Your task to perform on an android device: add a contact in the contacts app Image 0: 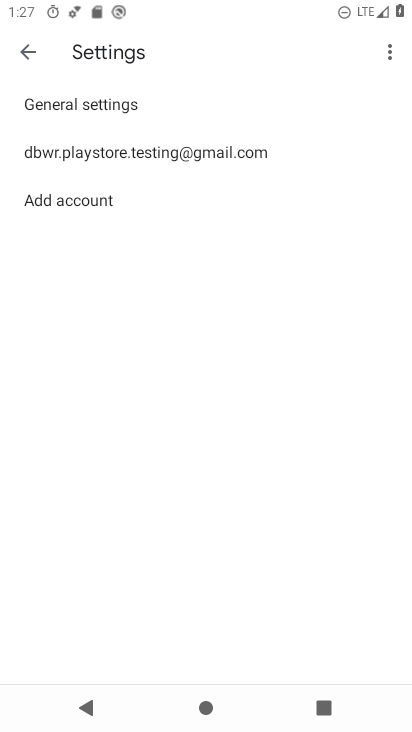
Step 0: press home button
Your task to perform on an android device: add a contact in the contacts app Image 1: 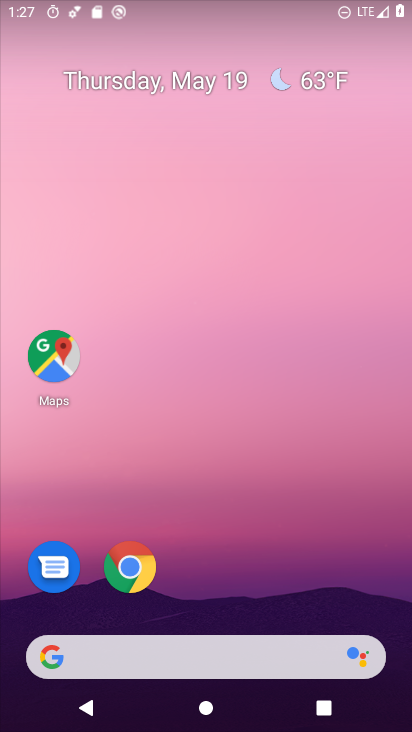
Step 1: drag from (159, 671) to (336, 219)
Your task to perform on an android device: add a contact in the contacts app Image 2: 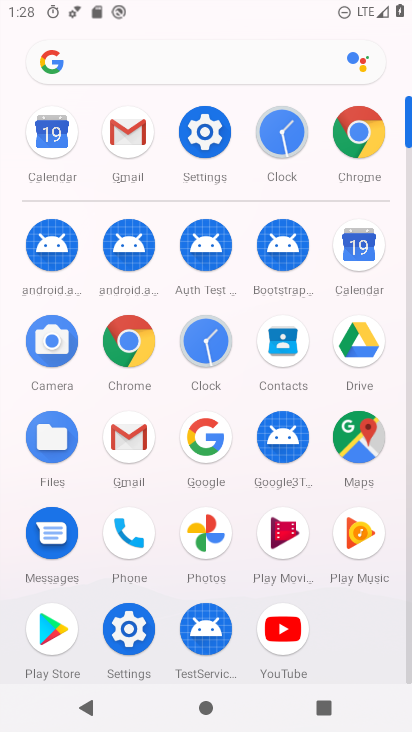
Step 2: click (291, 349)
Your task to perform on an android device: add a contact in the contacts app Image 3: 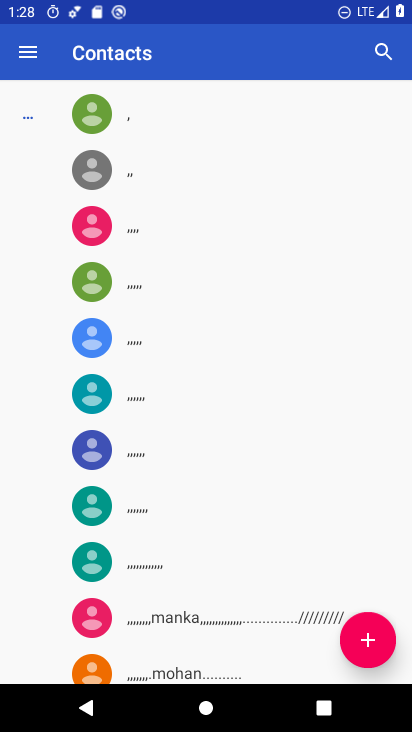
Step 3: click (351, 632)
Your task to perform on an android device: add a contact in the contacts app Image 4: 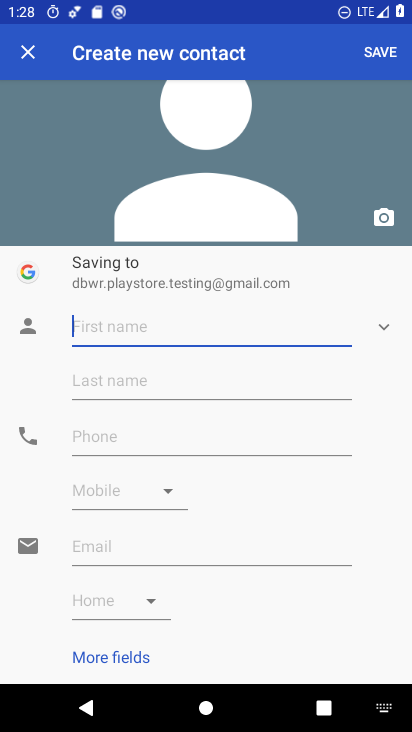
Step 4: click (144, 325)
Your task to perform on an android device: add a contact in the contacts app Image 5: 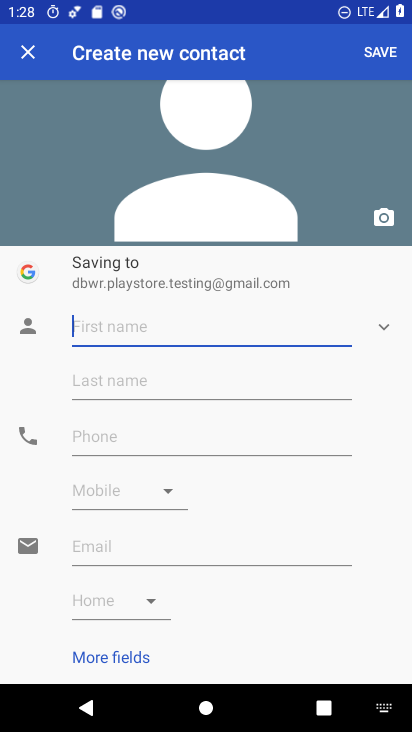
Step 5: type "muuhgdsfg"
Your task to perform on an android device: add a contact in the contacts app Image 6: 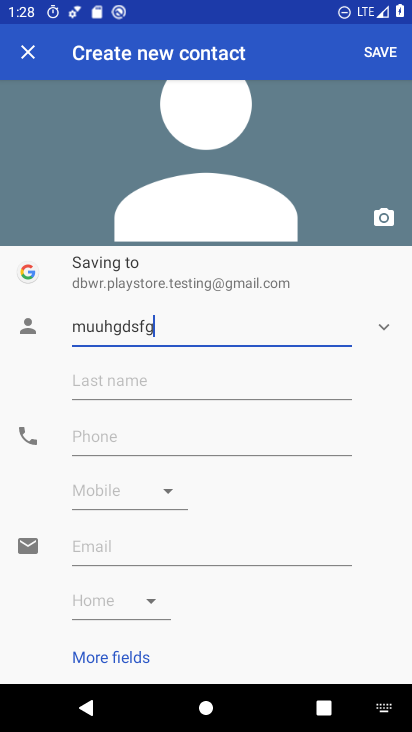
Step 6: click (106, 436)
Your task to perform on an android device: add a contact in the contacts app Image 7: 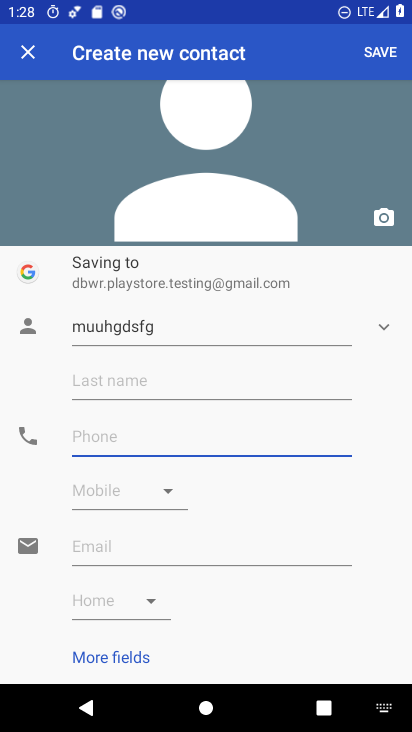
Step 7: type "744367899"
Your task to perform on an android device: add a contact in the contacts app Image 8: 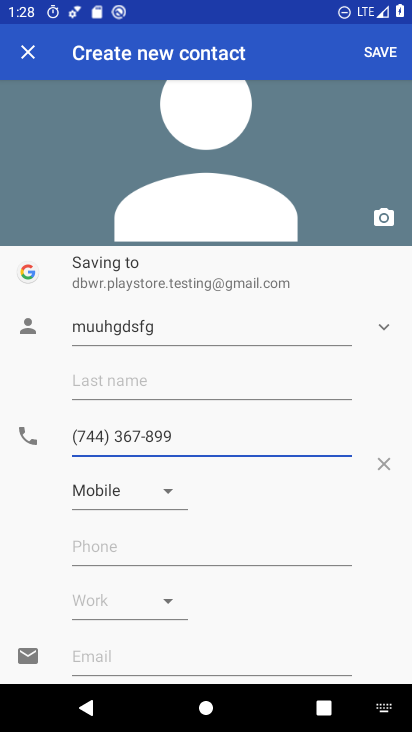
Step 8: click (383, 59)
Your task to perform on an android device: add a contact in the contacts app Image 9: 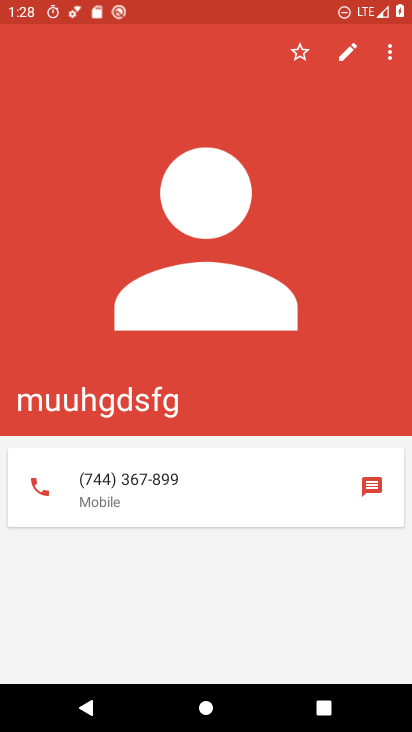
Step 9: task complete